Your task to perform on an android device: change your default location settings in chrome Image 0: 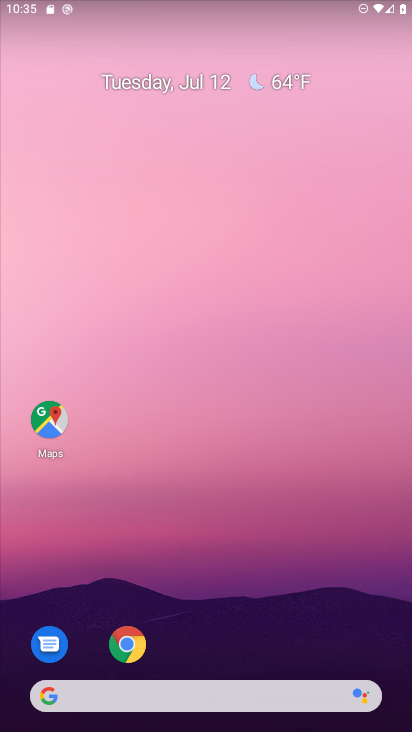
Step 0: click (284, 645)
Your task to perform on an android device: change your default location settings in chrome Image 1: 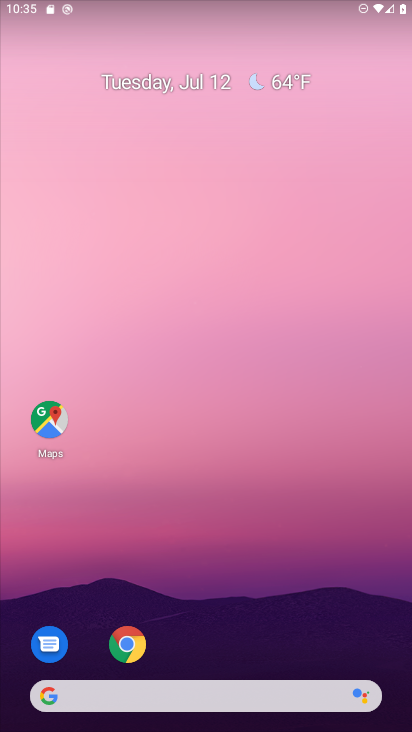
Step 1: click (118, 657)
Your task to perform on an android device: change your default location settings in chrome Image 2: 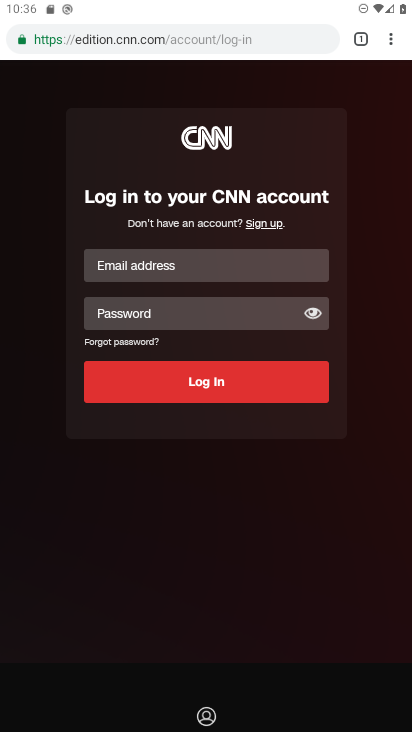
Step 2: click (393, 47)
Your task to perform on an android device: change your default location settings in chrome Image 3: 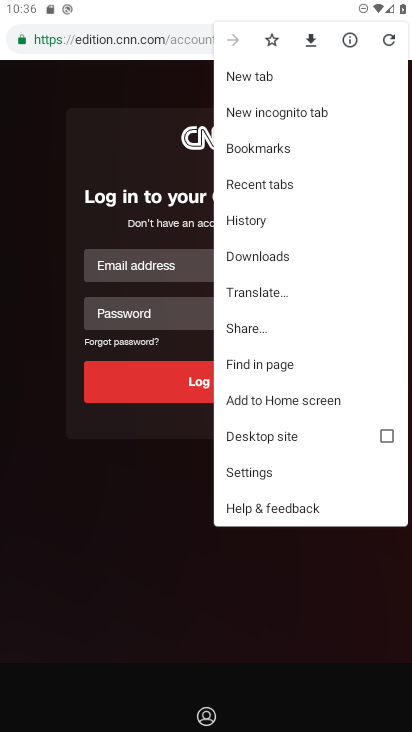
Step 3: click (263, 462)
Your task to perform on an android device: change your default location settings in chrome Image 4: 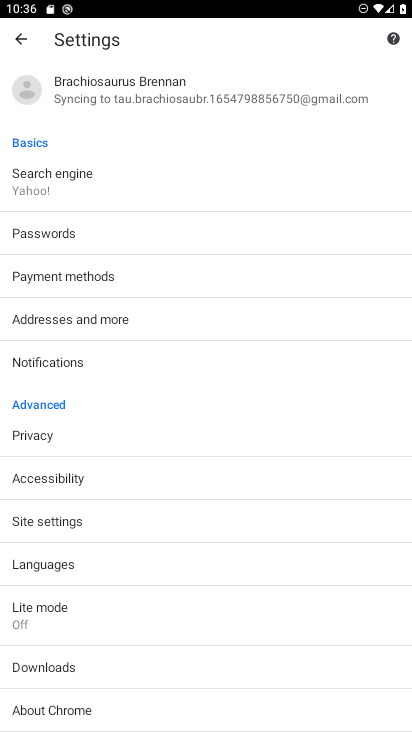
Step 4: click (208, 164)
Your task to perform on an android device: change your default location settings in chrome Image 5: 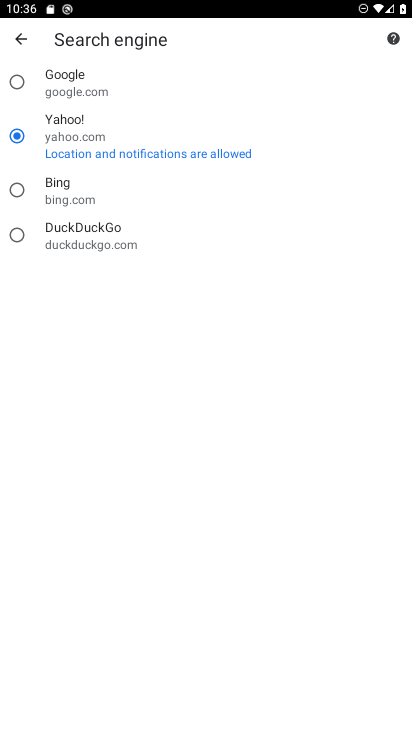
Step 5: click (8, 32)
Your task to perform on an android device: change your default location settings in chrome Image 6: 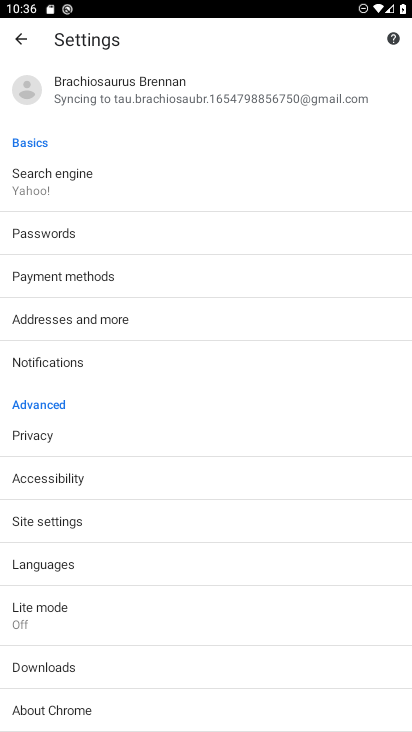
Step 6: click (125, 313)
Your task to perform on an android device: change your default location settings in chrome Image 7: 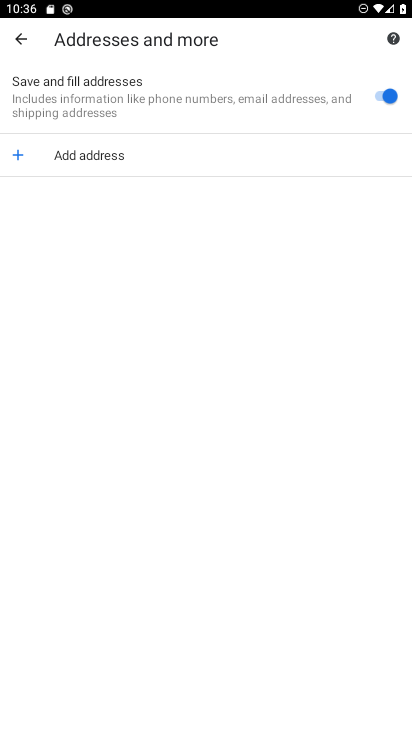
Step 7: click (364, 92)
Your task to perform on an android device: change your default location settings in chrome Image 8: 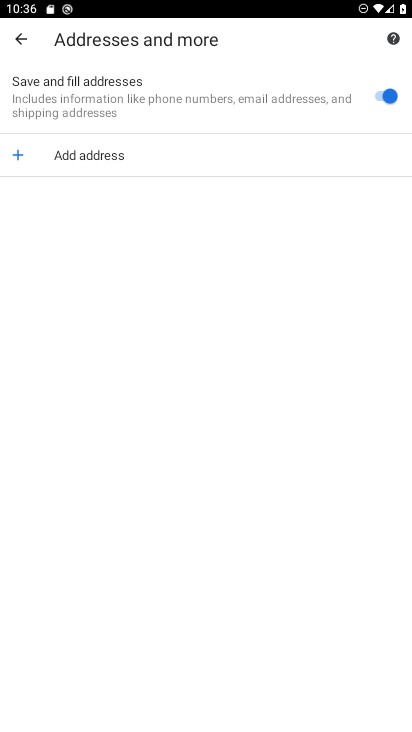
Step 8: click (364, 92)
Your task to perform on an android device: change your default location settings in chrome Image 9: 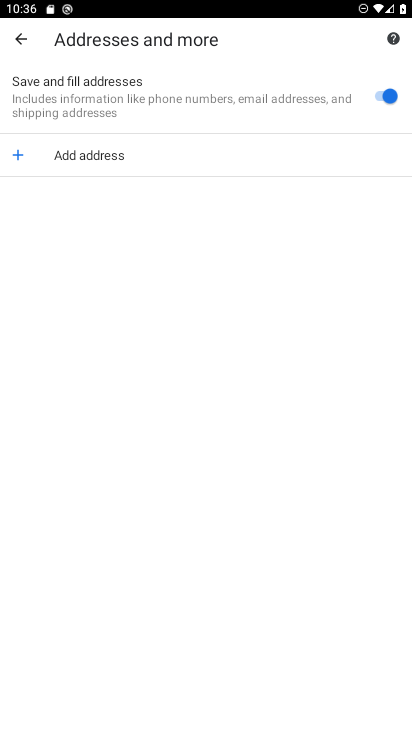
Step 9: task complete